Your task to perform on an android device: open app "Microsoft Excel" Image 0: 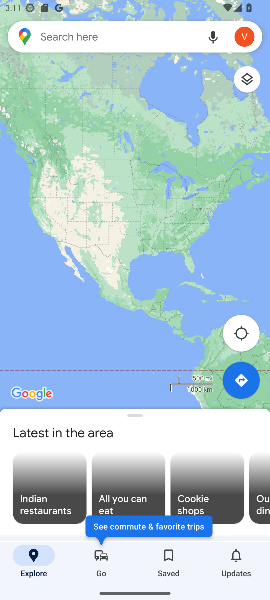
Step 0: press home button
Your task to perform on an android device: open app "Microsoft Excel" Image 1: 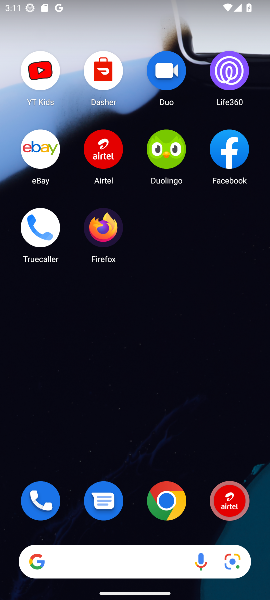
Step 1: drag from (142, 414) to (144, 33)
Your task to perform on an android device: open app "Microsoft Excel" Image 2: 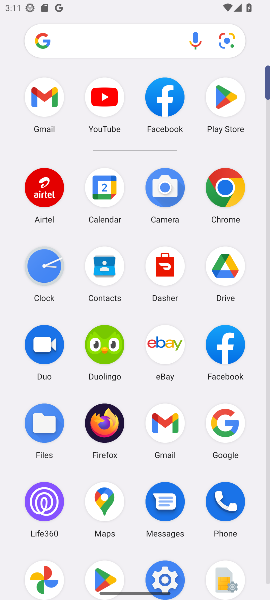
Step 2: click (225, 93)
Your task to perform on an android device: open app "Microsoft Excel" Image 3: 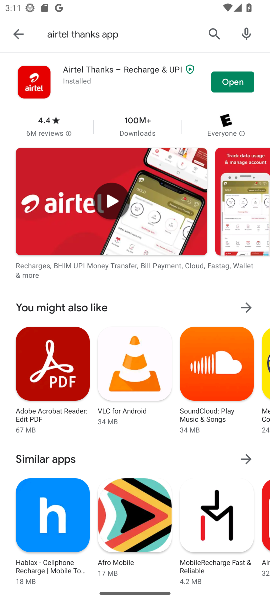
Step 3: click (216, 31)
Your task to perform on an android device: open app "Microsoft Excel" Image 4: 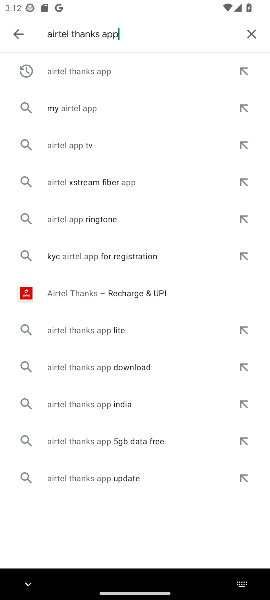
Step 4: click (243, 31)
Your task to perform on an android device: open app "Microsoft Excel" Image 5: 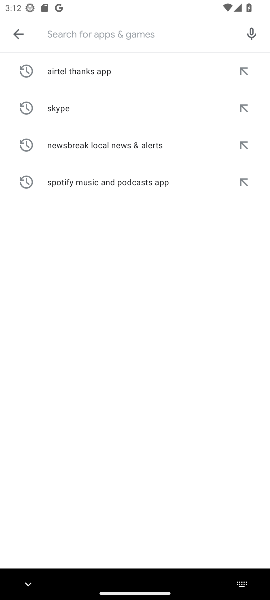
Step 5: type "Microsoft Excel"
Your task to perform on an android device: open app "Microsoft Excel" Image 6: 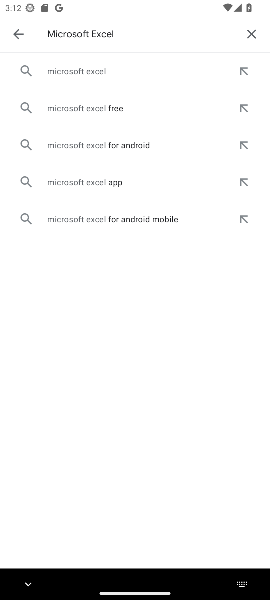
Step 6: click (86, 69)
Your task to perform on an android device: open app "Microsoft Excel" Image 7: 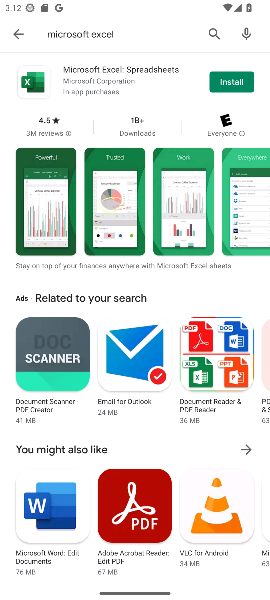
Step 7: task complete